Your task to perform on an android device: toggle show notifications on the lock screen Image 0: 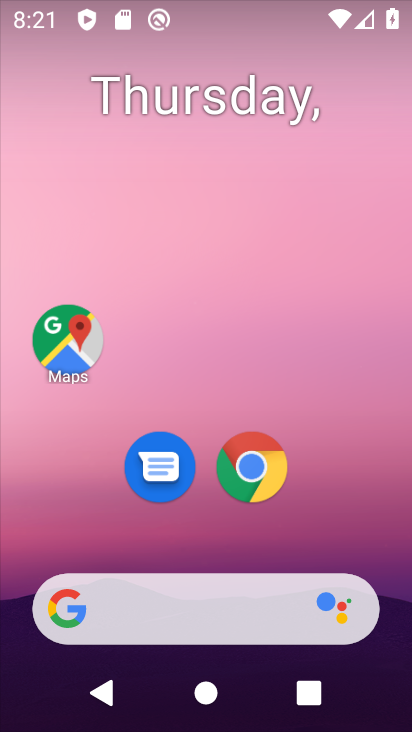
Step 0: drag from (353, 480) to (190, 3)
Your task to perform on an android device: toggle show notifications on the lock screen Image 1: 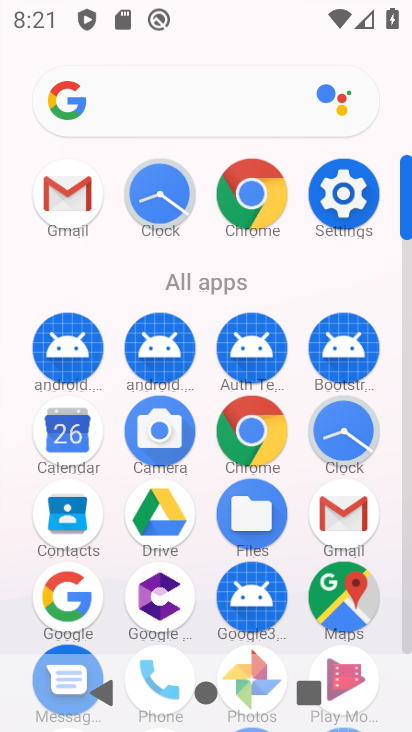
Step 1: click (339, 200)
Your task to perform on an android device: toggle show notifications on the lock screen Image 2: 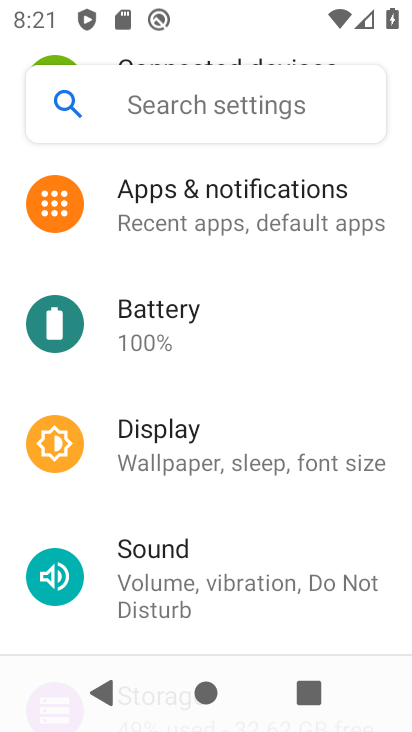
Step 2: click (247, 191)
Your task to perform on an android device: toggle show notifications on the lock screen Image 3: 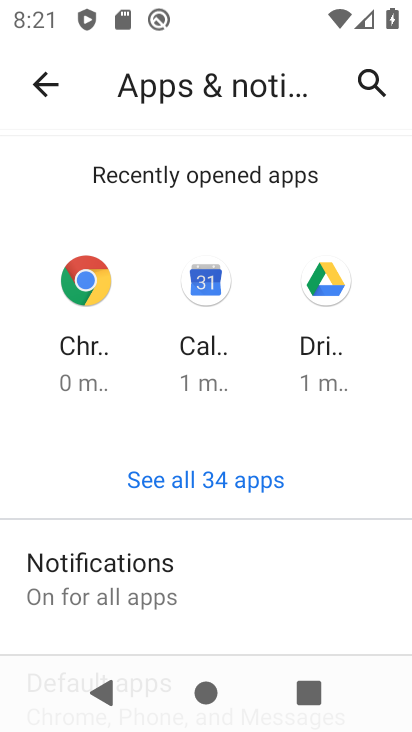
Step 3: click (120, 561)
Your task to perform on an android device: toggle show notifications on the lock screen Image 4: 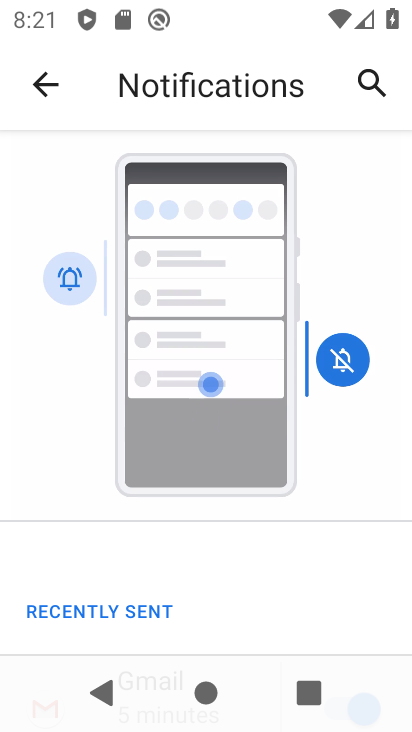
Step 4: drag from (295, 543) to (243, 182)
Your task to perform on an android device: toggle show notifications on the lock screen Image 5: 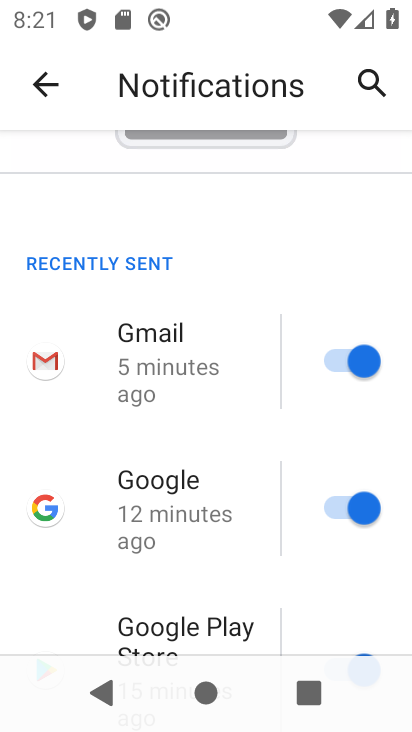
Step 5: drag from (297, 373) to (274, 205)
Your task to perform on an android device: toggle show notifications on the lock screen Image 6: 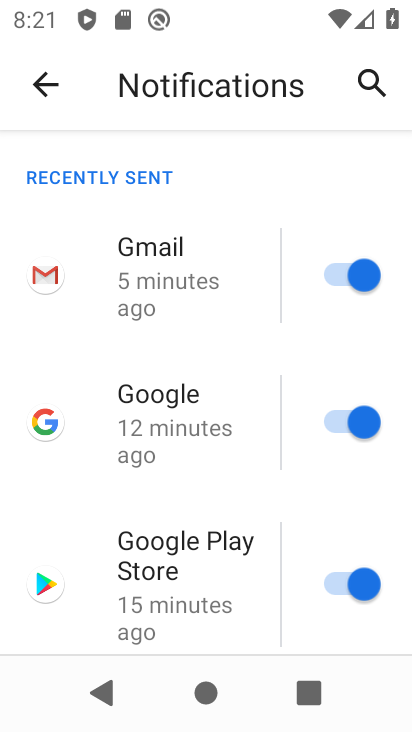
Step 6: drag from (254, 494) to (191, 129)
Your task to perform on an android device: toggle show notifications on the lock screen Image 7: 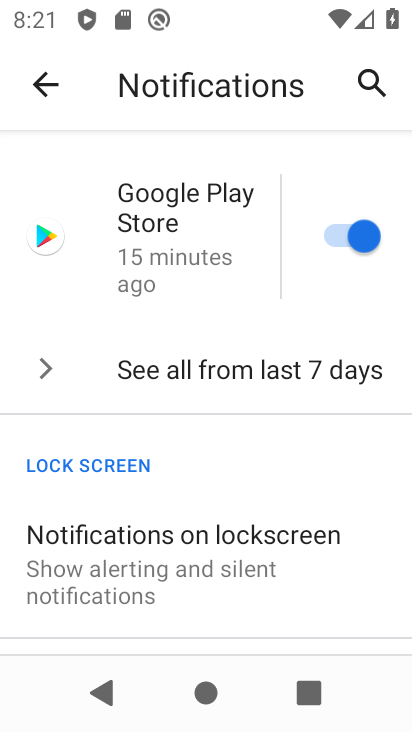
Step 7: click (168, 527)
Your task to perform on an android device: toggle show notifications on the lock screen Image 8: 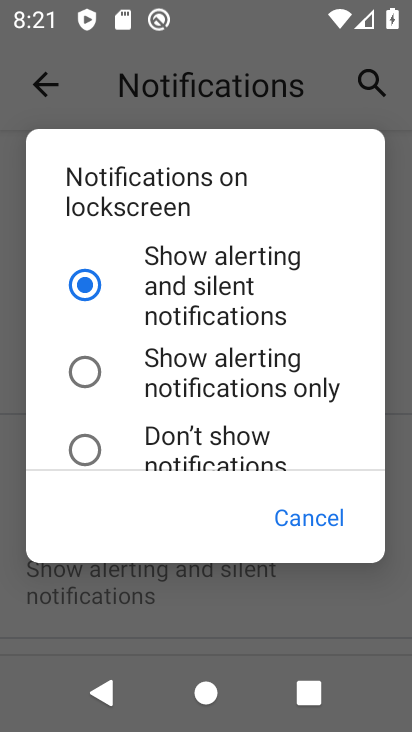
Step 8: click (85, 449)
Your task to perform on an android device: toggle show notifications on the lock screen Image 9: 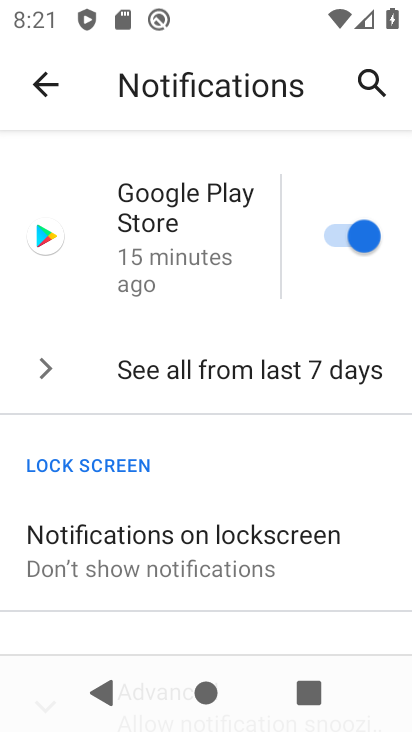
Step 9: task complete